Your task to perform on an android device: check google app version Image 0: 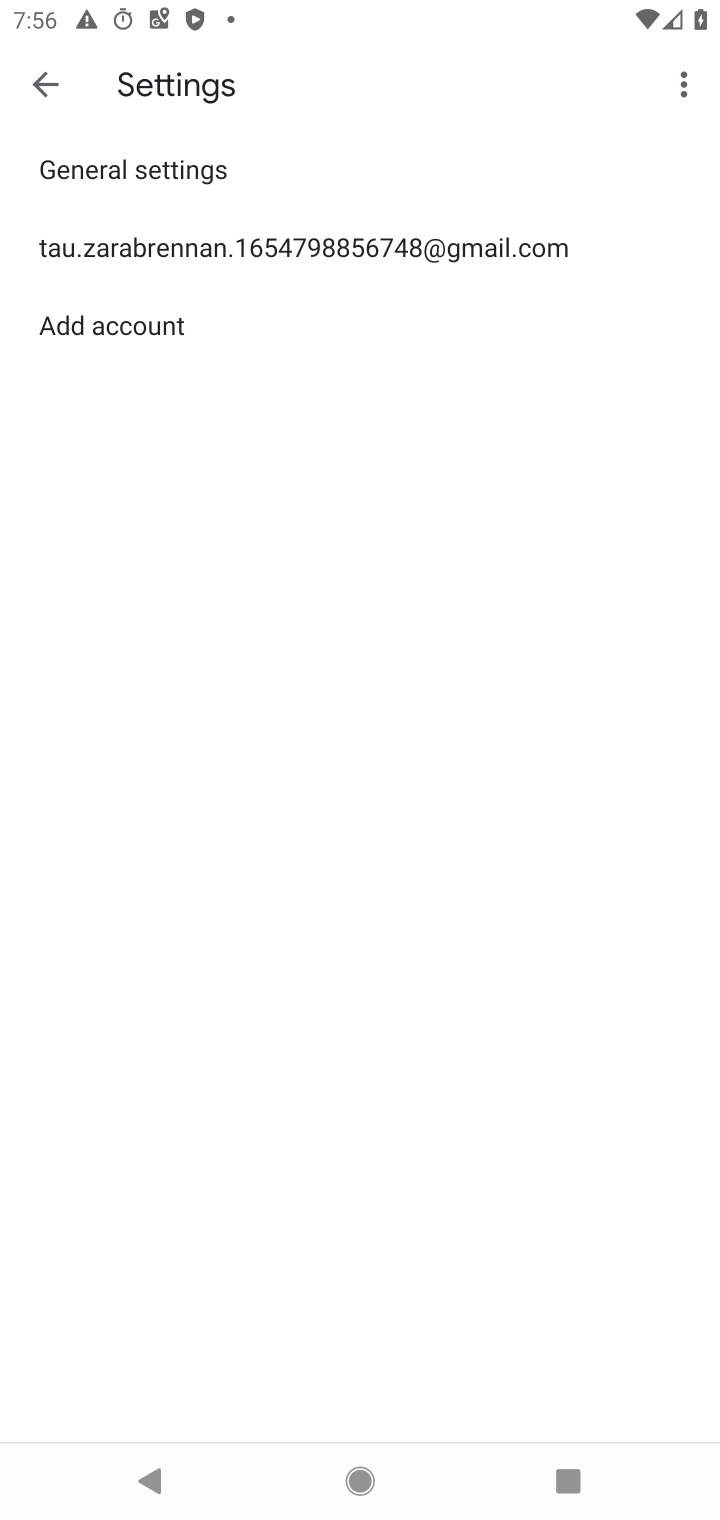
Step 0: press home button
Your task to perform on an android device: check google app version Image 1: 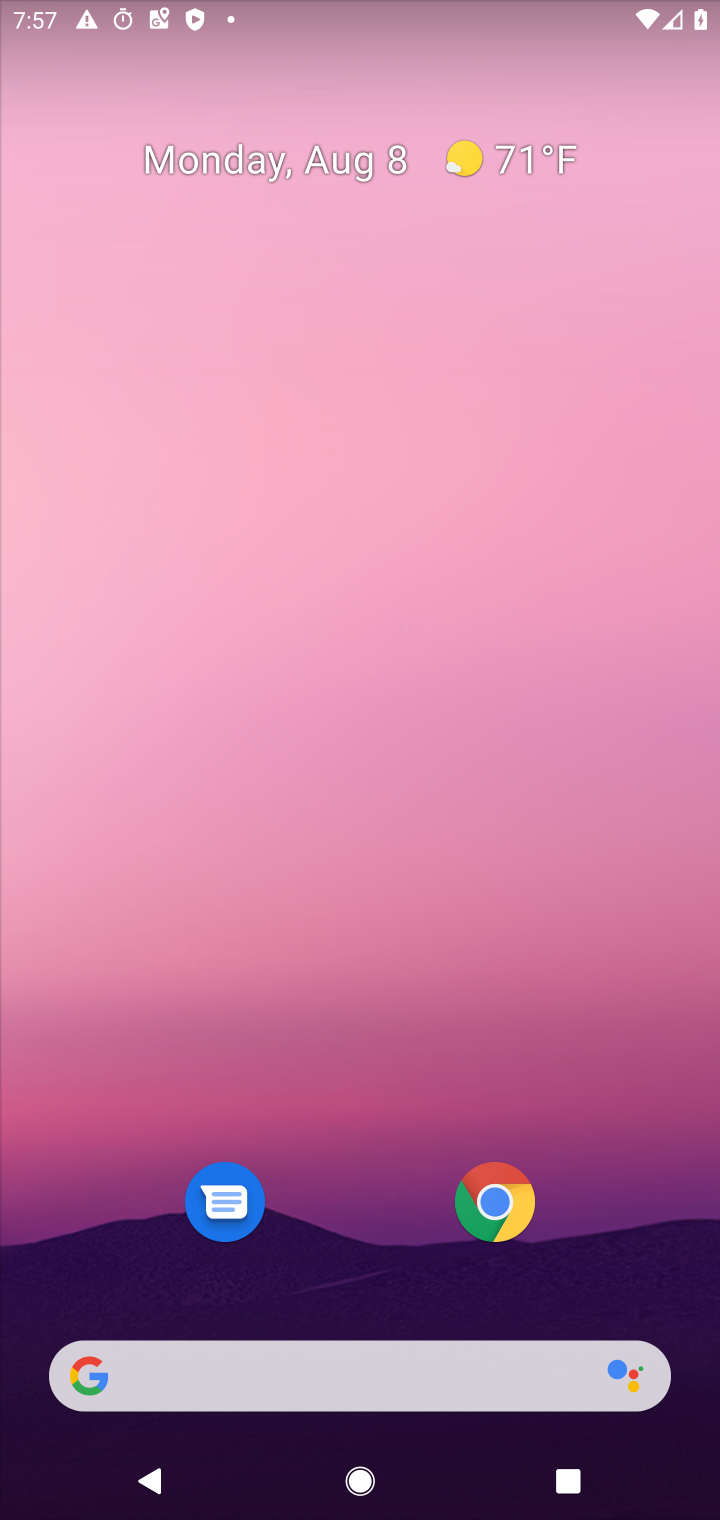
Step 1: drag from (434, 1142) to (489, 388)
Your task to perform on an android device: check google app version Image 2: 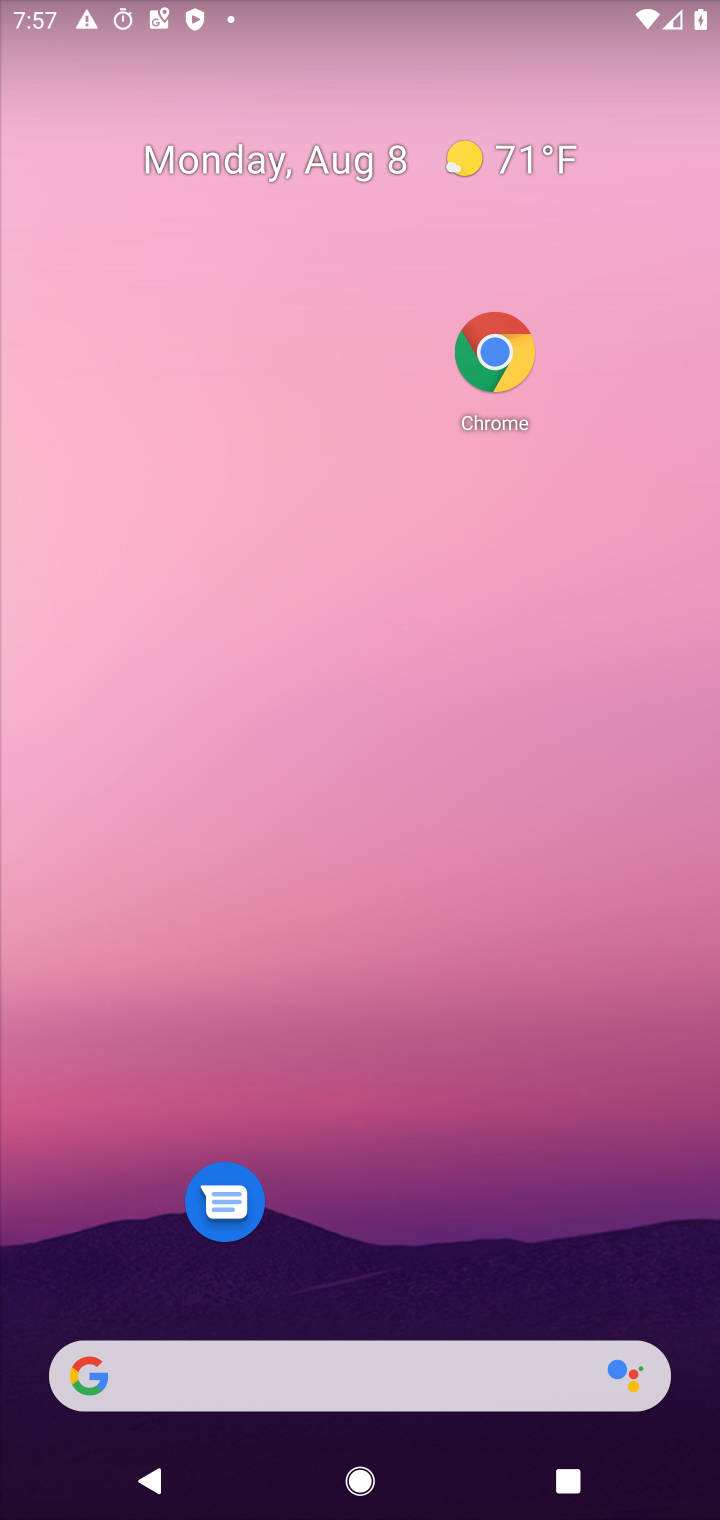
Step 2: drag from (428, 1250) to (465, 130)
Your task to perform on an android device: check google app version Image 3: 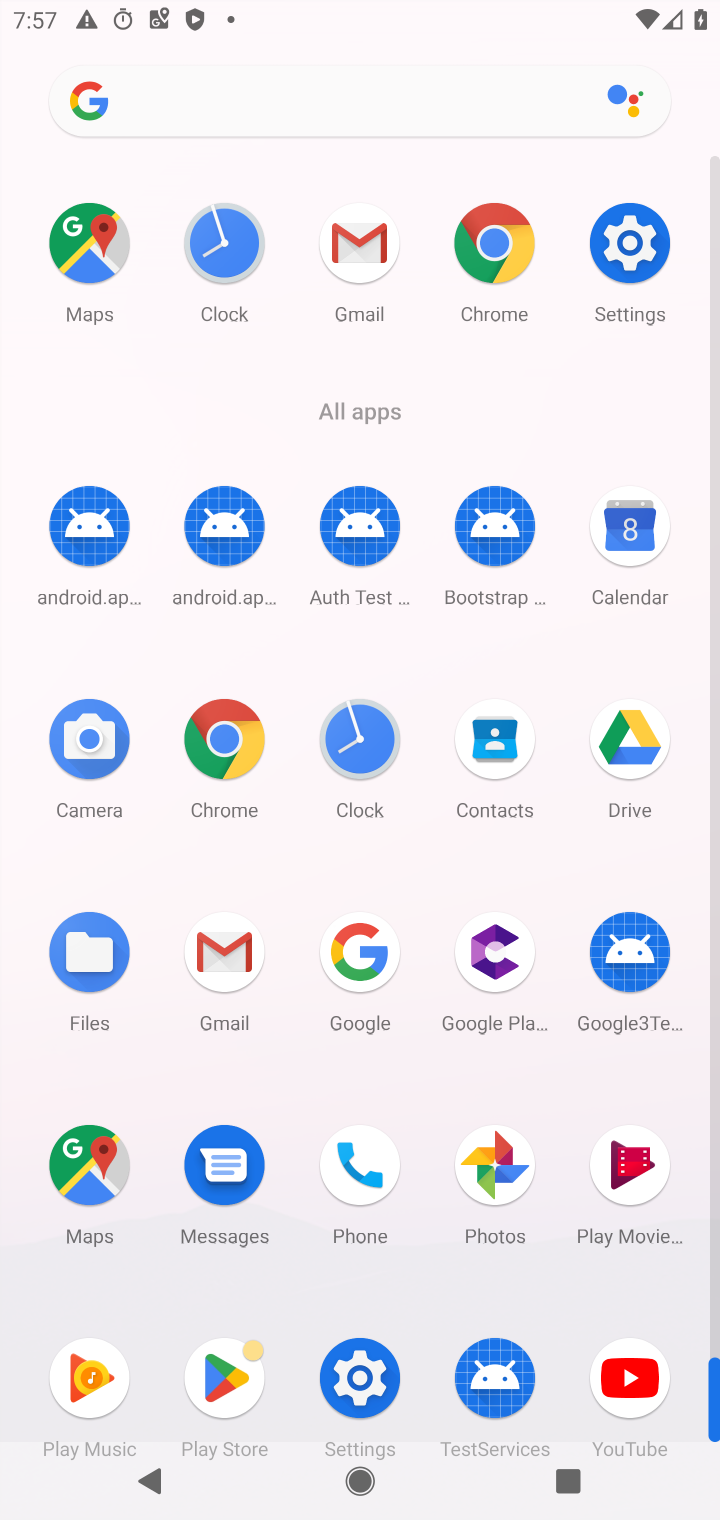
Step 3: click (355, 980)
Your task to perform on an android device: check google app version Image 4: 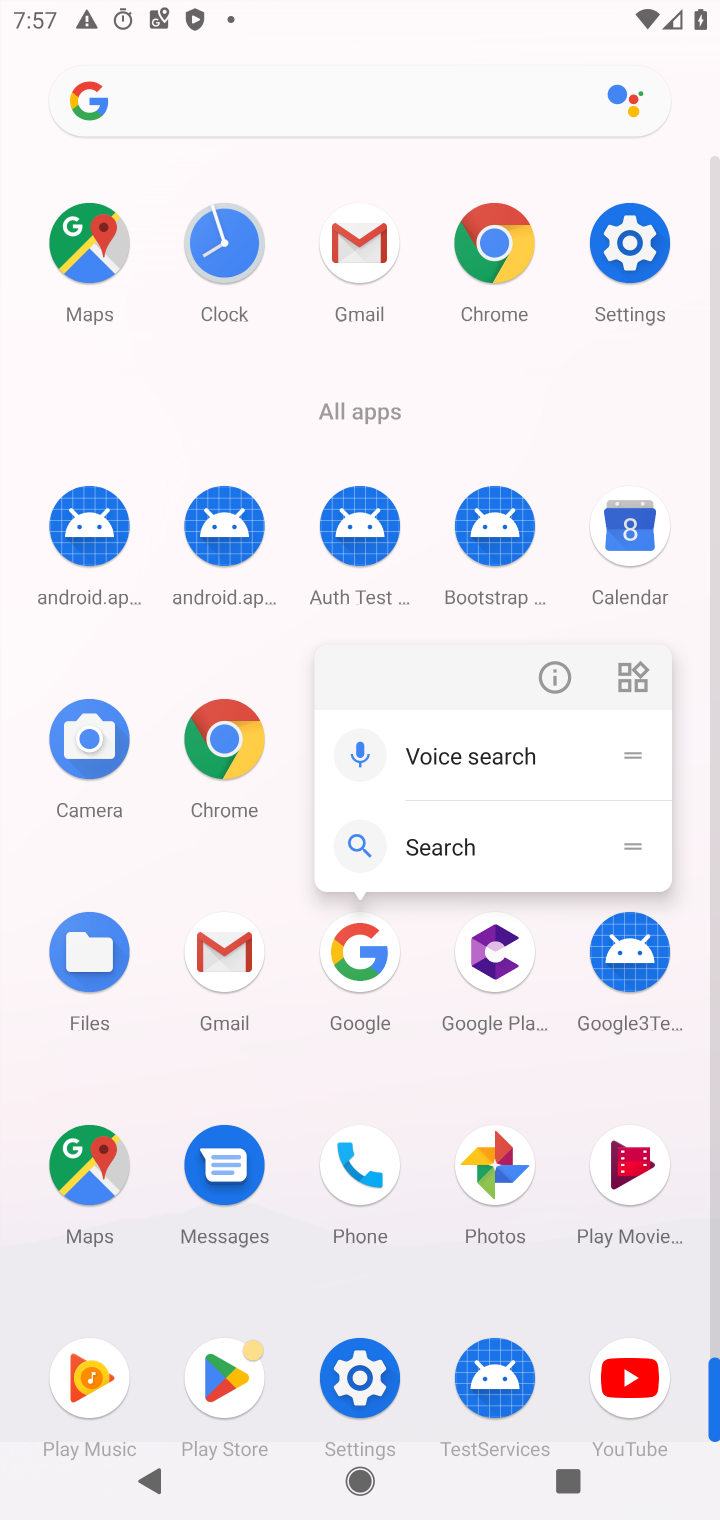
Step 4: click (369, 967)
Your task to perform on an android device: check google app version Image 5: 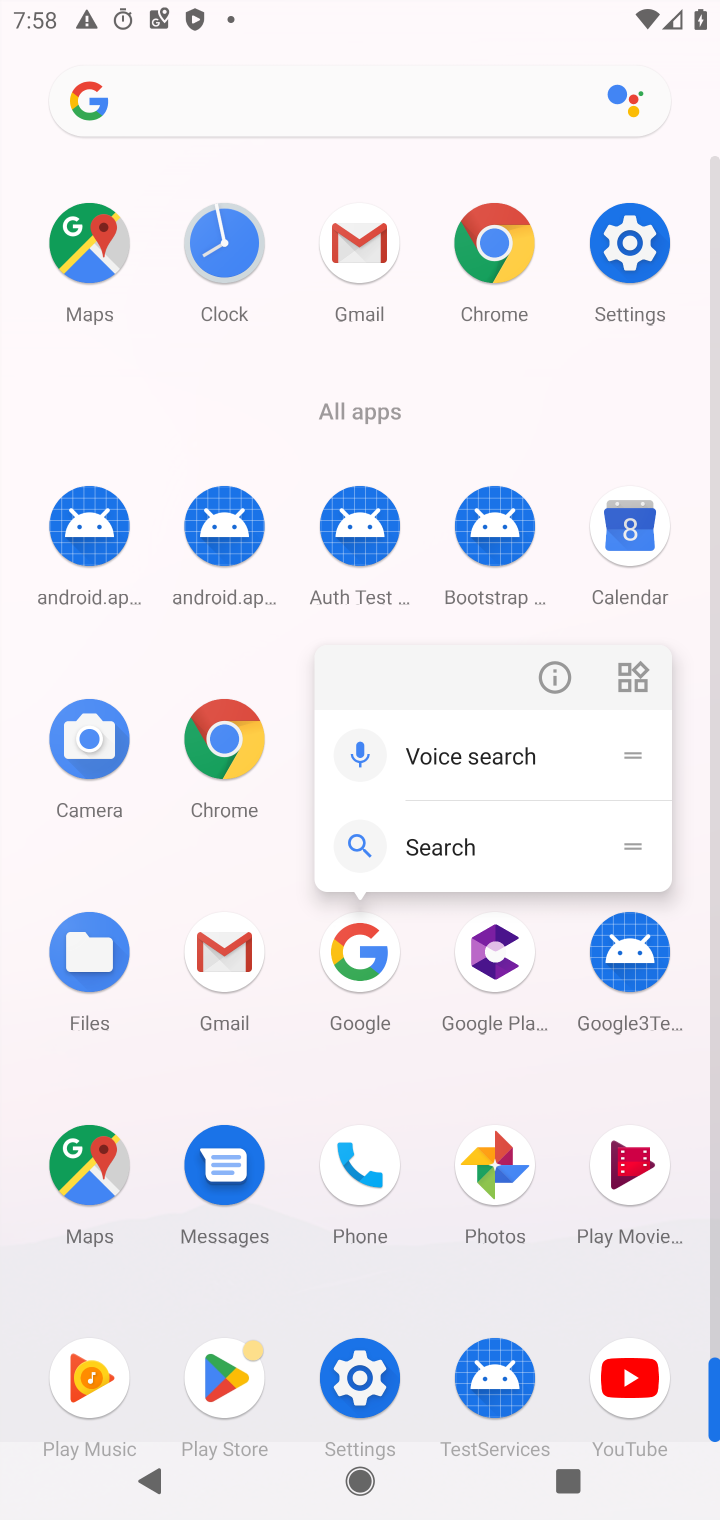
Step 5: click (363, 987)
Your task to perform on an android device: check google app version Image 6: 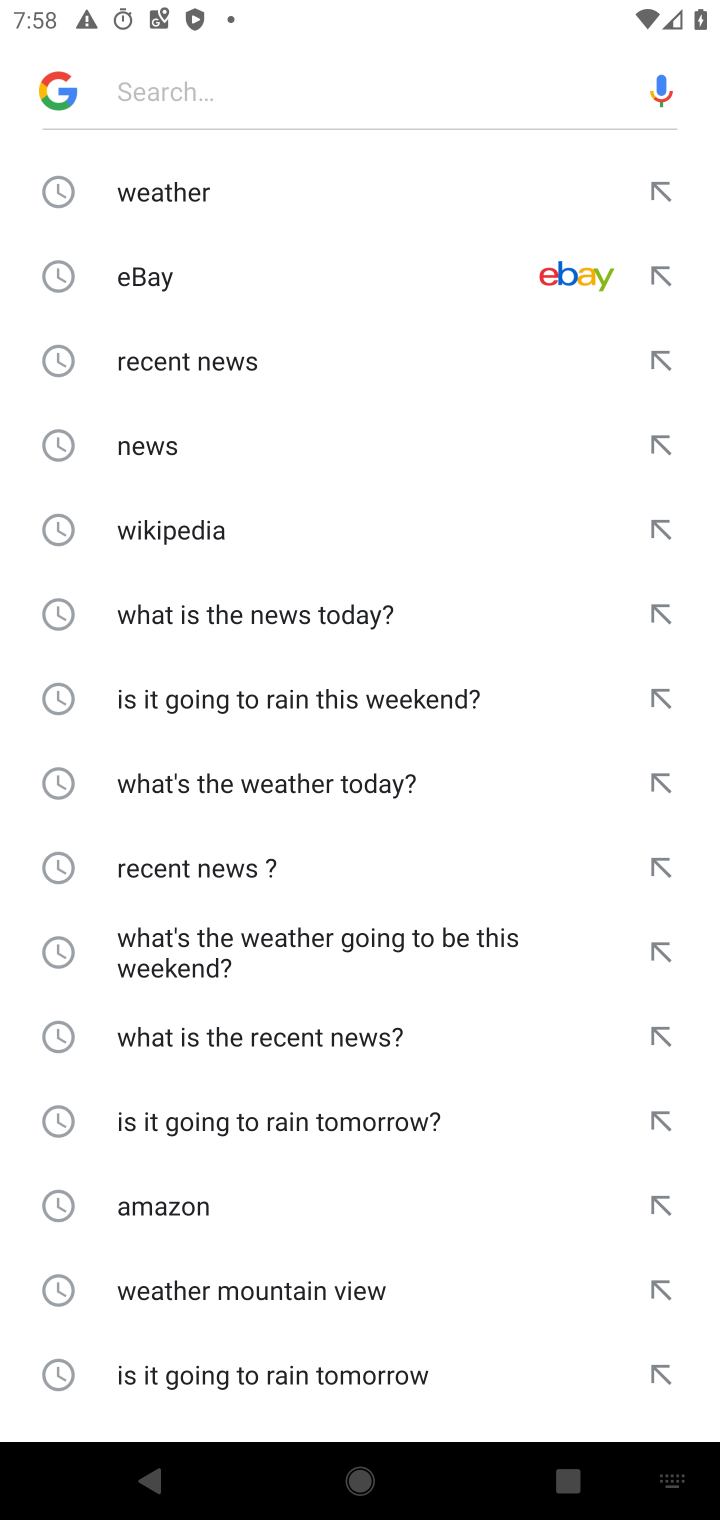
Step 6: press back button
Your task to perform on an android device: check google app version Image 7: 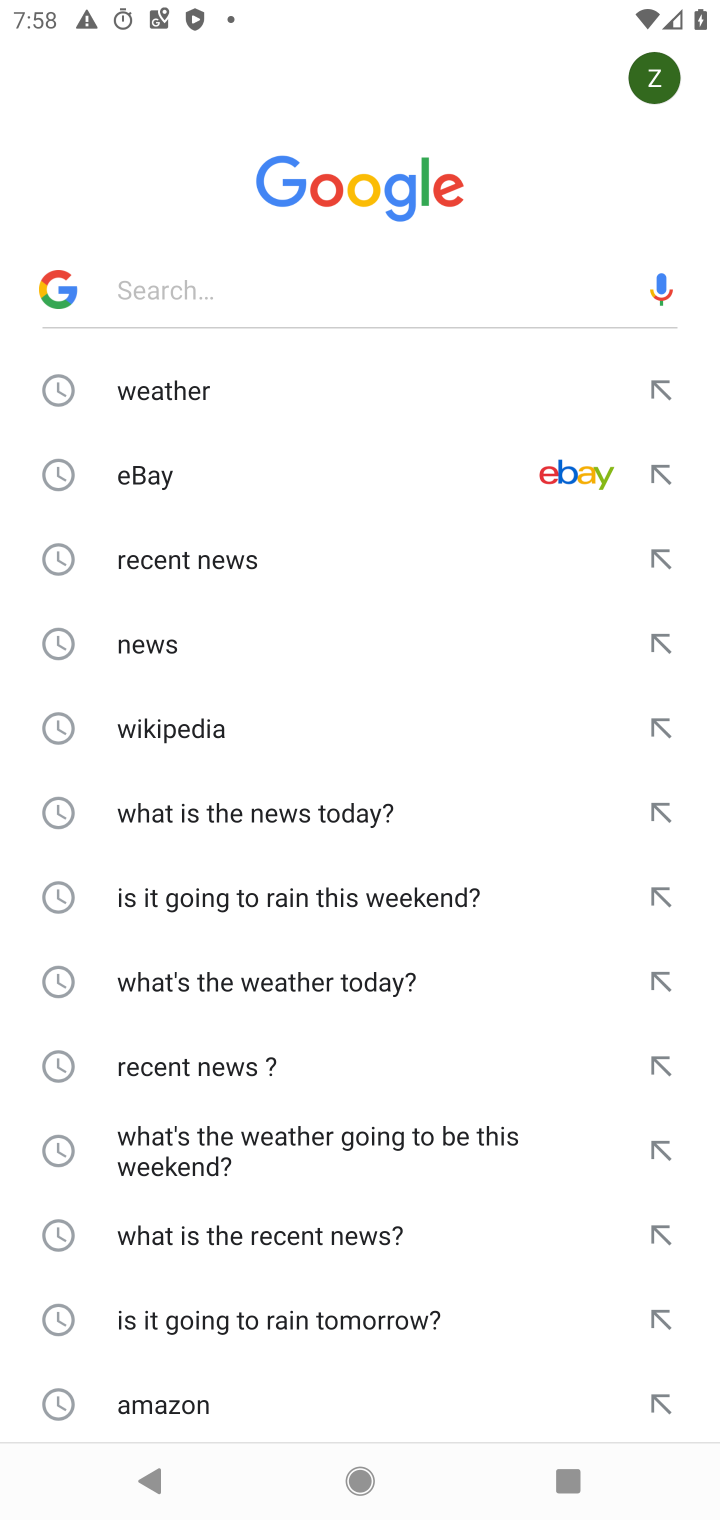
Step 7: click (664, 90)
Your task to perform on an android device: check google app version Image 8: 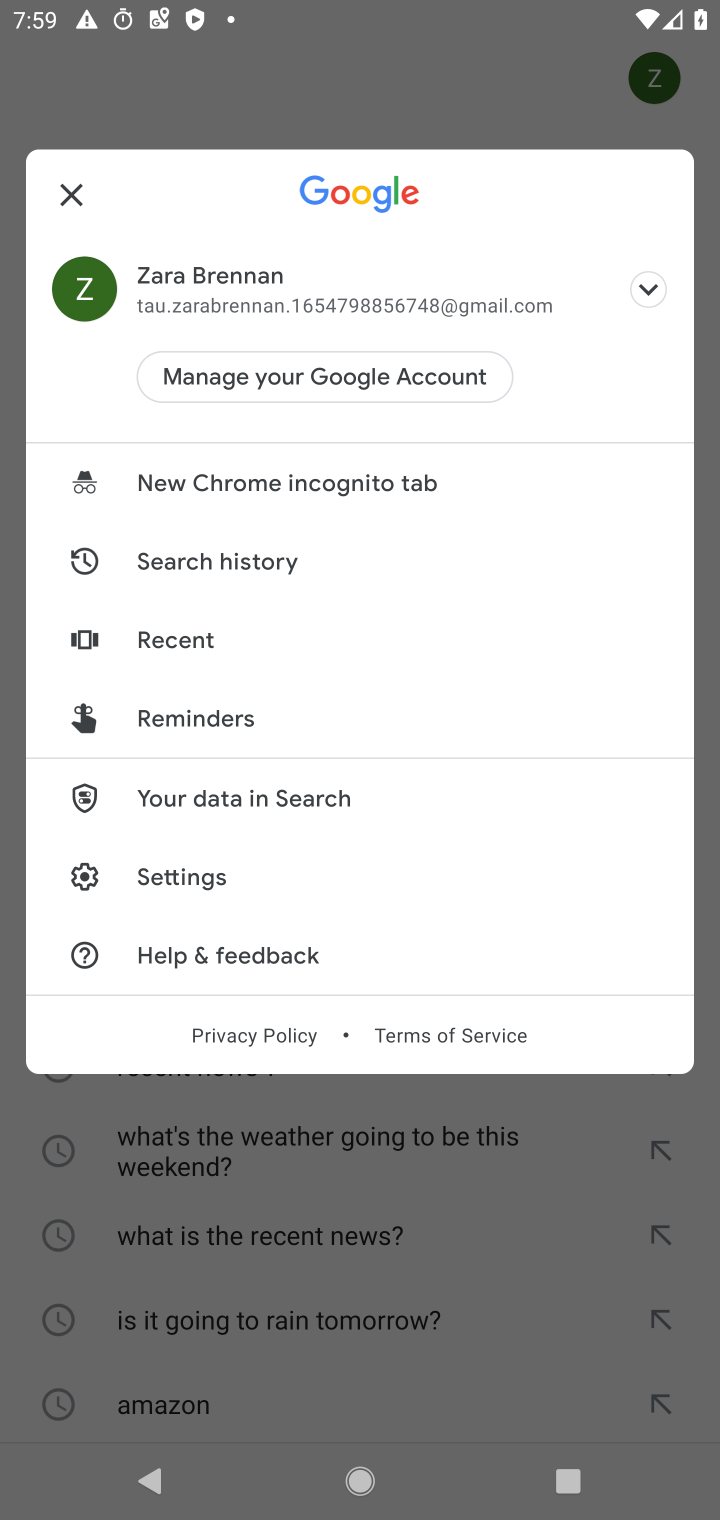
Step 8: click (151, 891)
Your task to perform on an android device: check google app version Image 9: 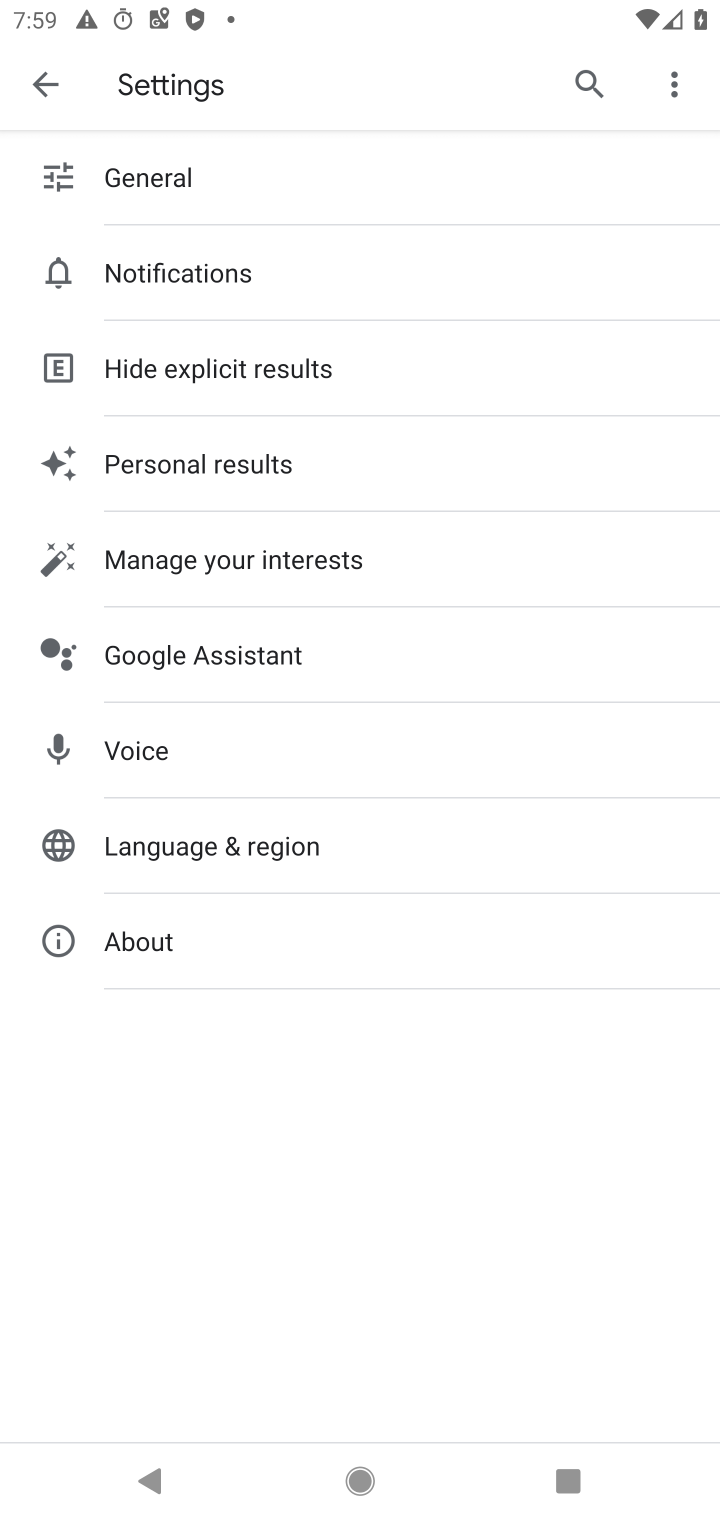
Step 9: click (229, 936)
Your task to perform on an android device: check google app version Image 10: 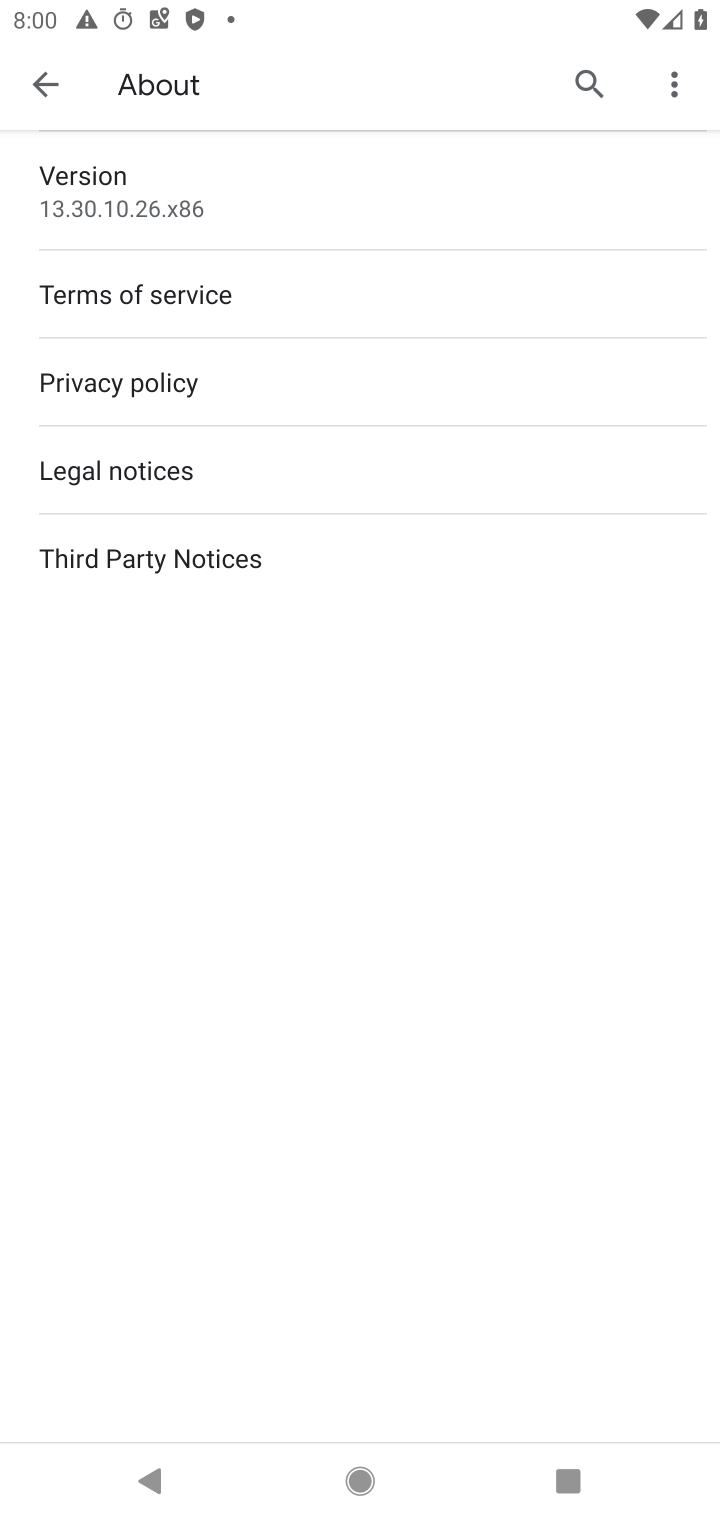
Step 10: click (193, 207)
Your task to perform on an android device: check google app version Image 11: 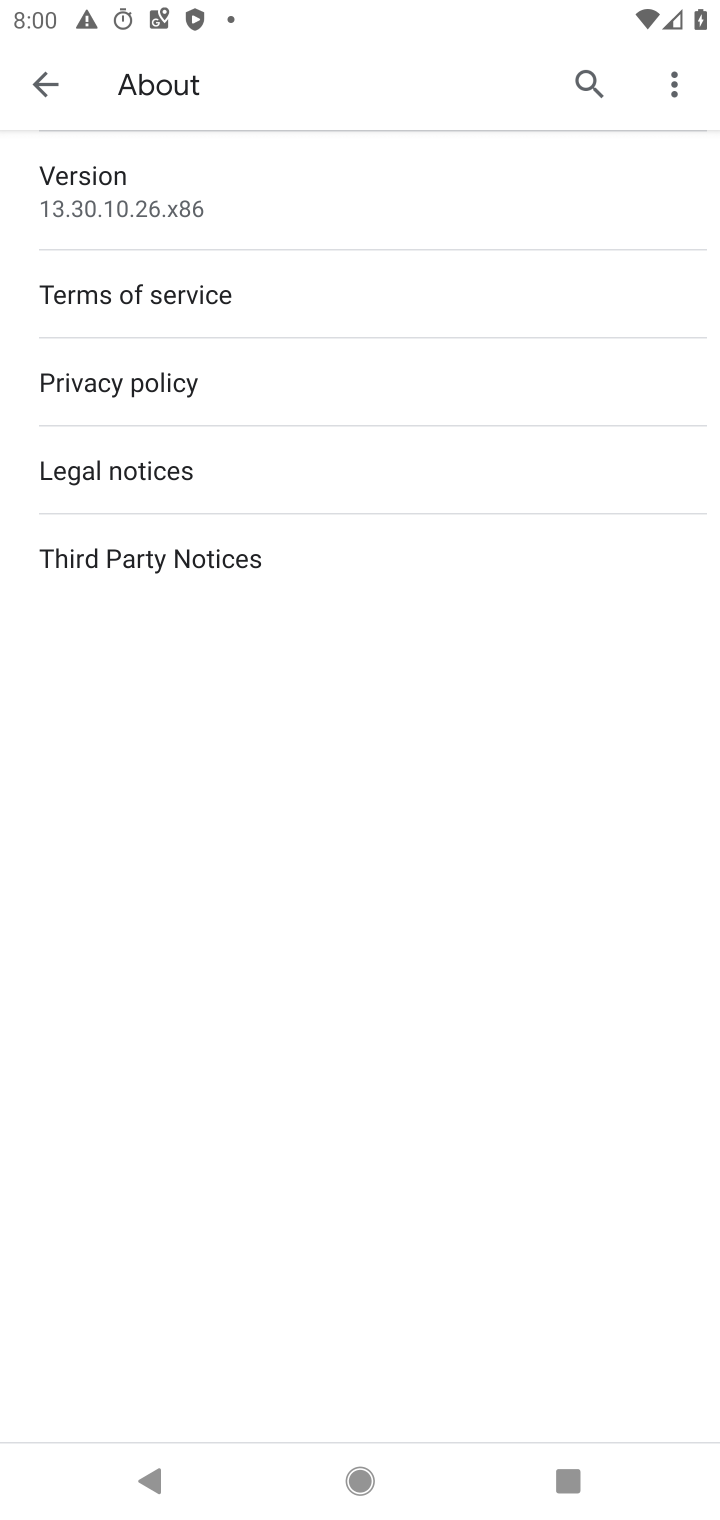
Step 11: task complete